Your task to perform on an android device: change the clock style Image 0: 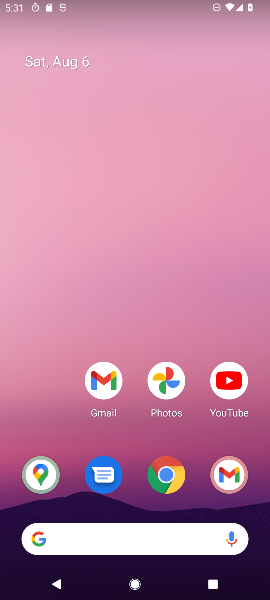
Step 0: drag from (49, 567) to (82, 402)
Your task to perform on an android device: change the clock style Image 1: 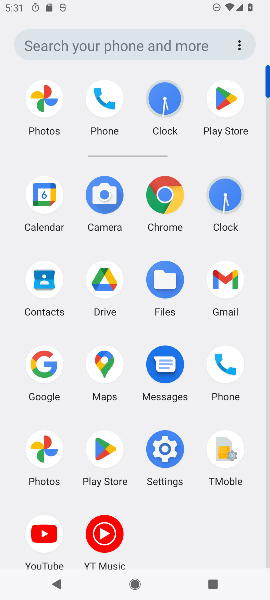
Step 1: click (231, 206)
Your task to perform on an android device: change the clock style Image 2: 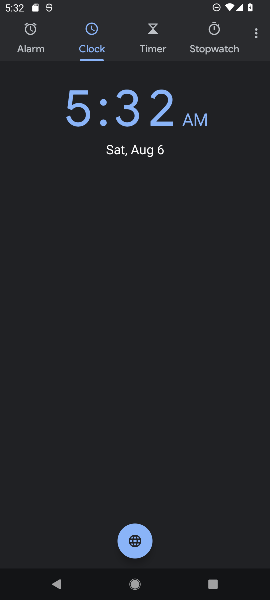
Step 2: click (254, 35)
Your task to perform on an android device: change the clock style Image 3: 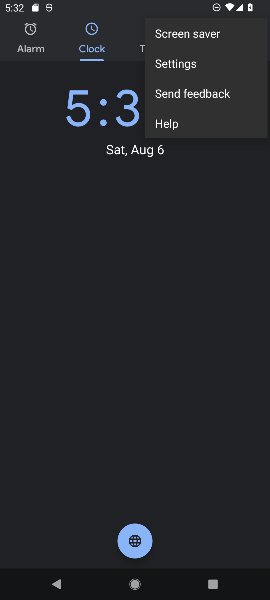
Step 3: click (187, 63)
Your task to perform on an android device: change the clock style Image 4: 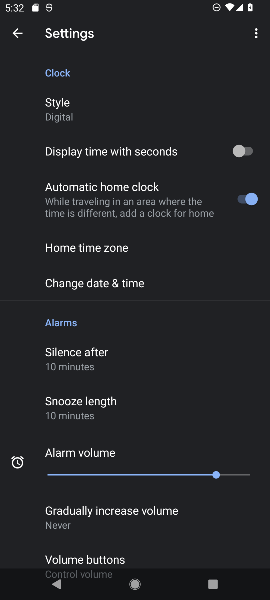
Step 4: click (73, 115)
Your task to perform on an android device: change the clock style Image 5: 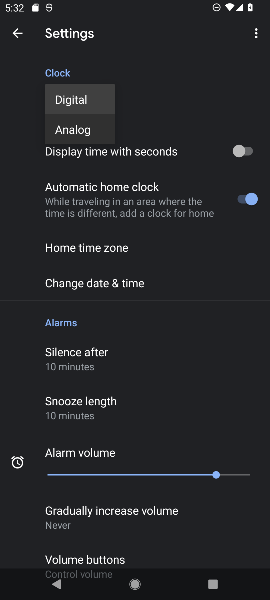
Step 5: click (79, 141)
Your task to perform on an android device: change the clock style Image 6: 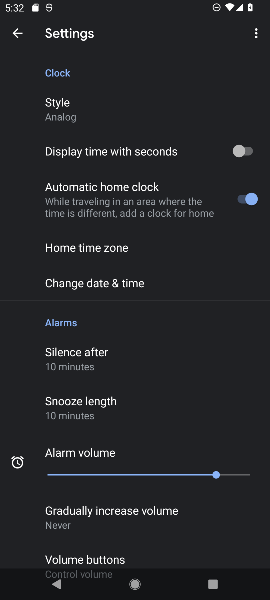
Step 6: task complete